Your task to perform on an android device: Open the calendar and show me this week's events Image 0: 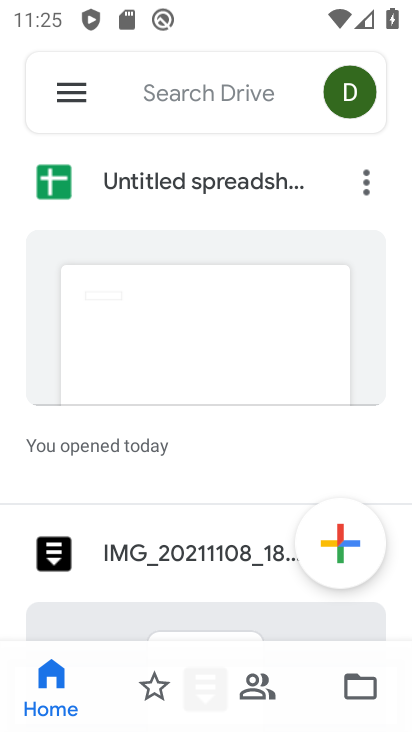
Step 0: press home button
Your task to perform on an android device: Open the calendar and show me this week's events Image 1: 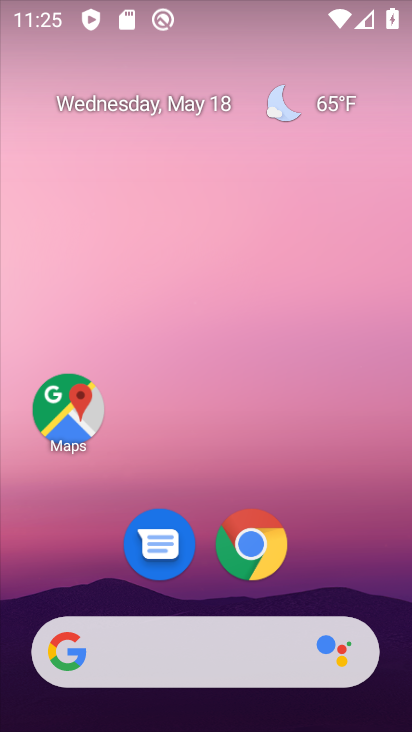
Step 1: drag from (359, 419) to (359, 61)
Your task to perform on an android device: Open the calendar and show me this week's events Image 2: 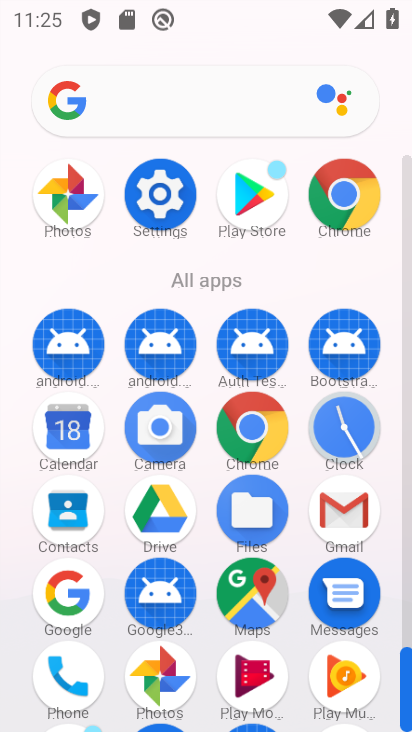
Step 2: click (78, 436)
Your task to perform on an android device: Open the calendar and show me this week's events Image 3: 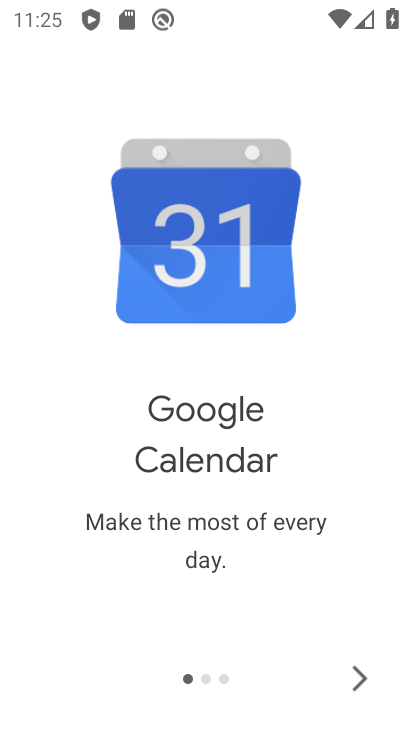
Step 3: click (365, 689)
Your task to perform on an android device: Open the calendar and show me this week's events Image 4: 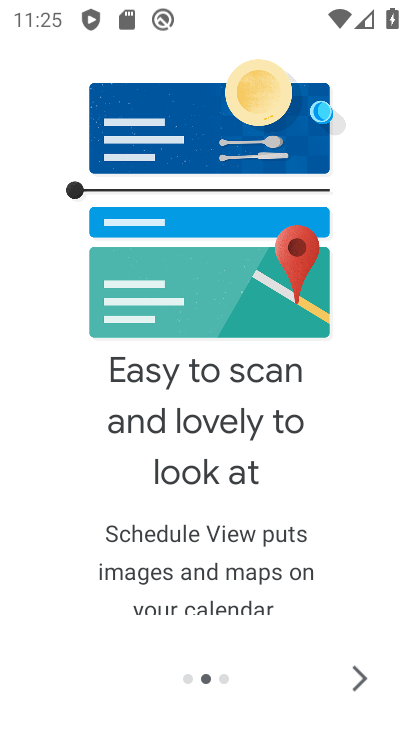
Step 4: click (365, 689)
Your task to perform on an android device: Open the calendar and show me this week's events Image 5: 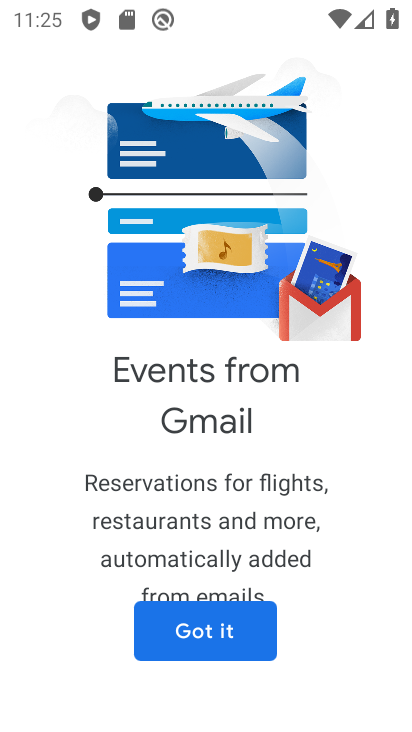
Step 5: click (195, 654)
Your task to perform on an android device: Open the calendar and show me this week's events Image 6: 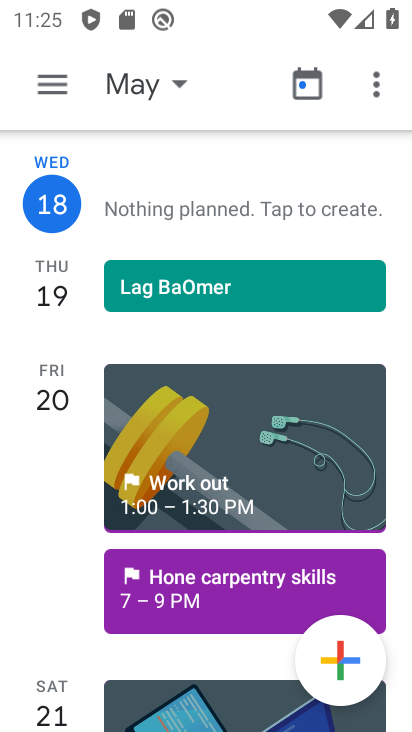
Step 6: task complete